Your task to perform on an android device: Go to Google maps Image 0: 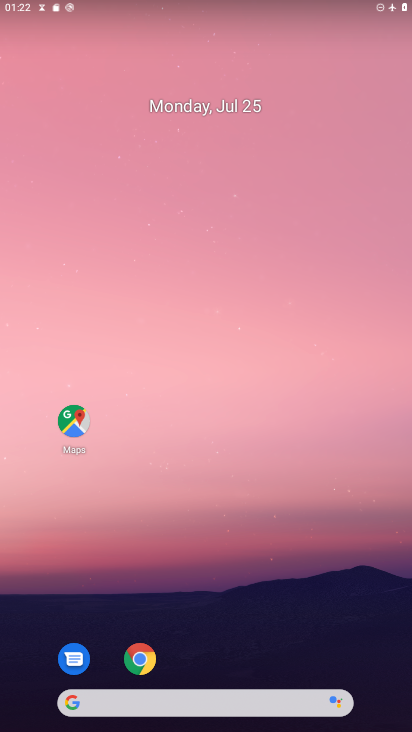
Step 0: click (62, 419)
Your task to perform on an android device: Go to Google maps Image 1: 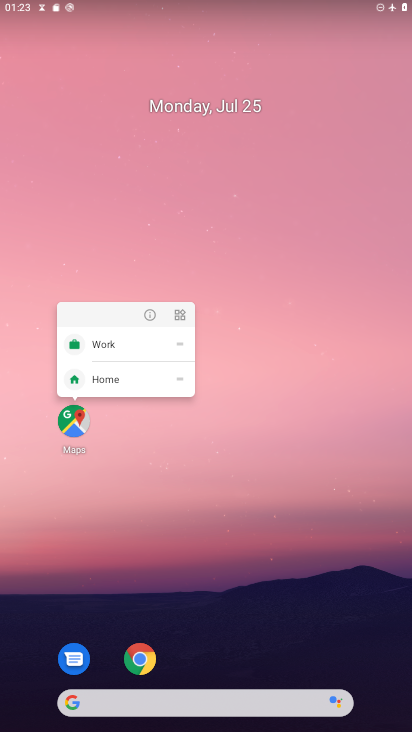
Step 1: click (70, 413)
Your task to perform on an android device: Go to Google maps Image 2: 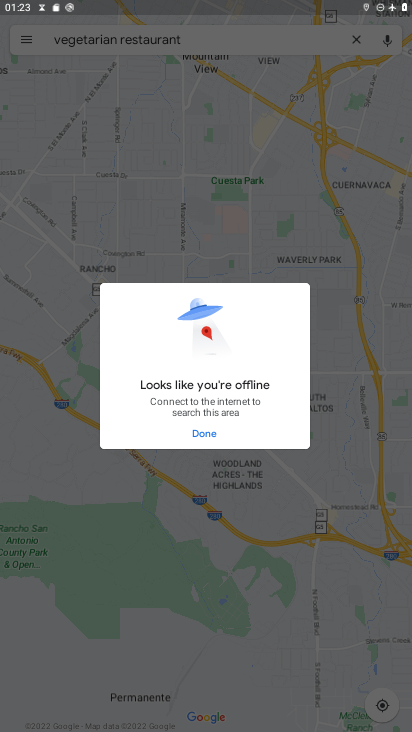
Step 2: task complete